Your task to perform on an android device: turn off sleep mode Image 0: 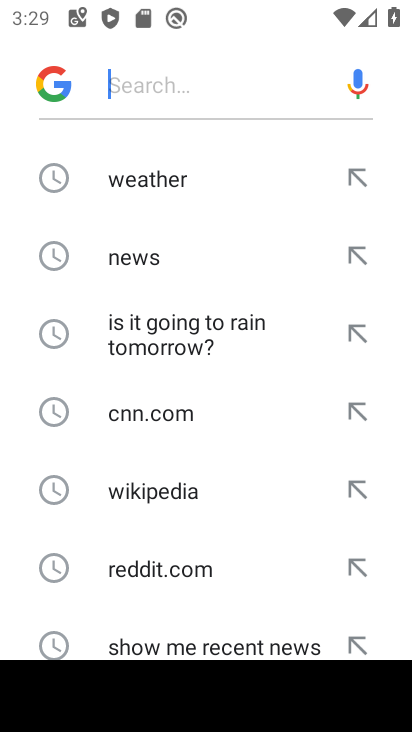
Step 0: press home button
Your task to perform on an android device: turn off sleep mode Image 1: 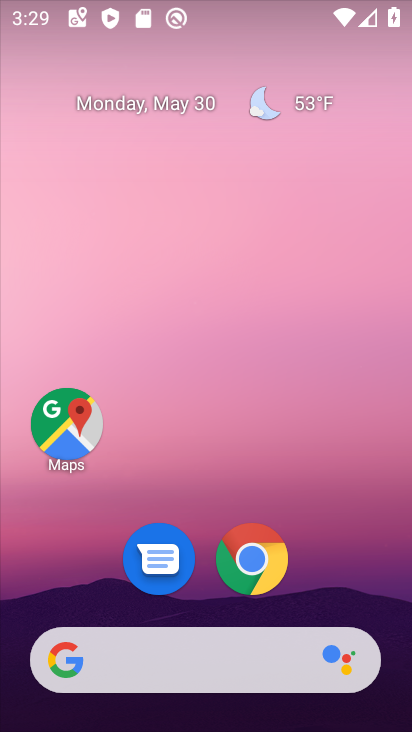
Step 1: drag from (215, 722) to (188, 13)
Your task to perform on an android device: turn off sleep mode Image 2: 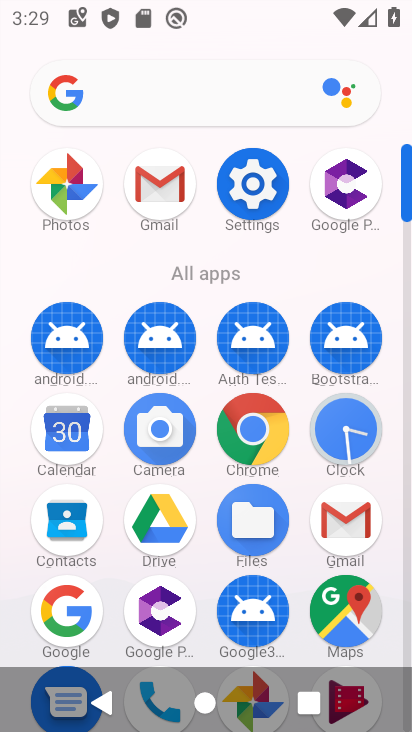
Step 2: click (249, 179)
Your task to perform on an android device: turn off sleep mode Image 3: 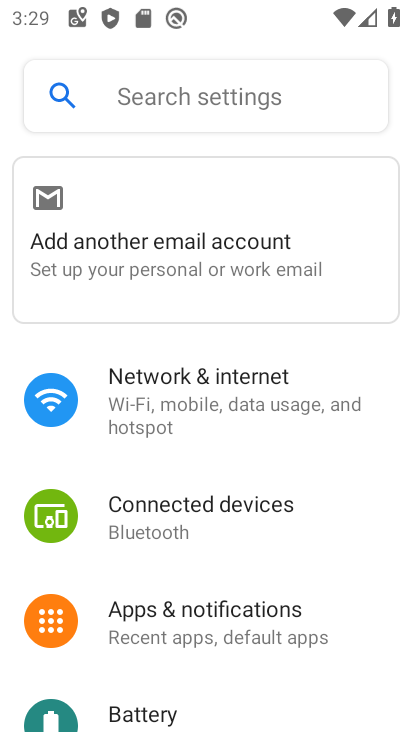
Step 3: drag from (211, 687) to (194, 225)
Your task to perform on an android device: turn off sleep mode Image 4: 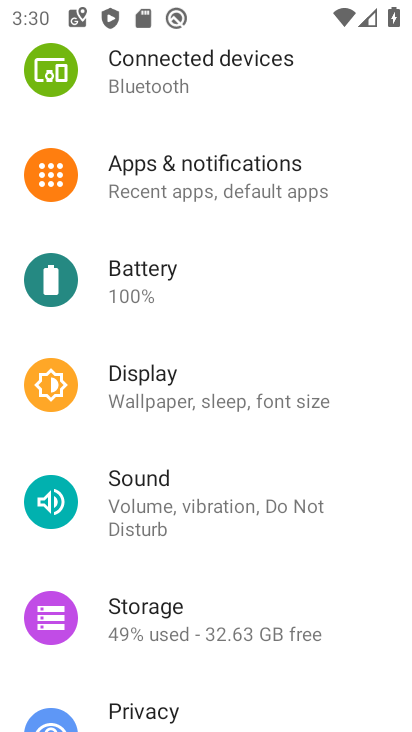
Step 4: click (222, 394)
Your task to perform on an android device: turn off sleep mode Image 5: 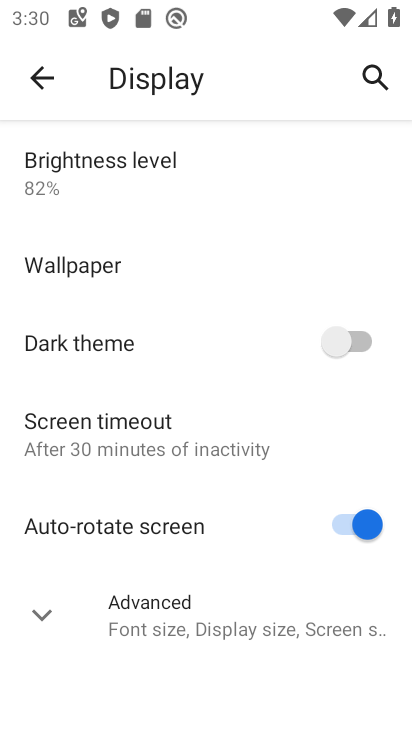
Step 5: click (39, 80)
Your task to perform on an android device: turn off sleep mode Image 6: 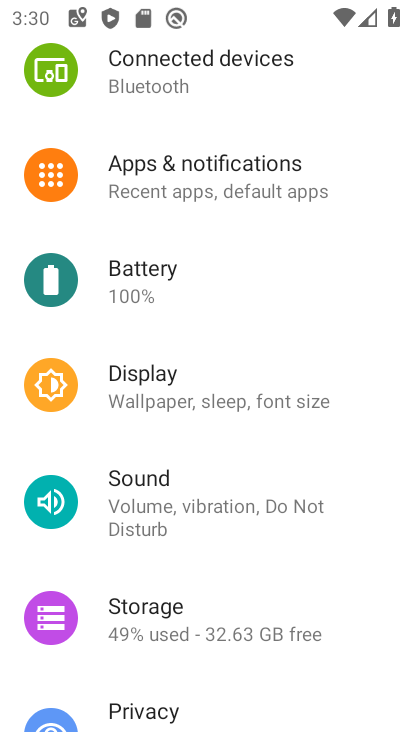
Step 6: task complete